Your task to perform on an android device: Show me recent news Image 0: 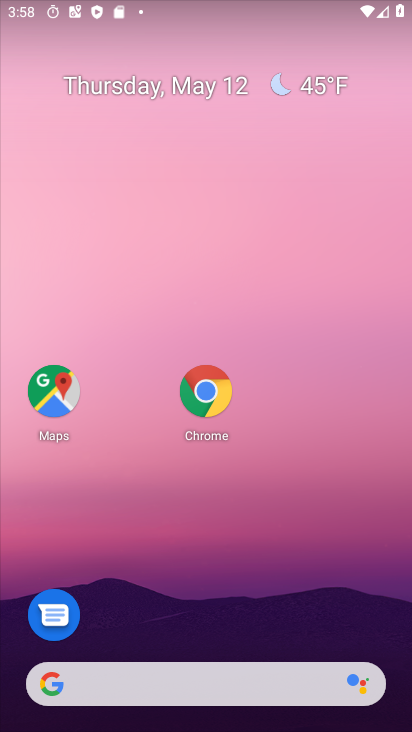
Step 0: drag from (212, 572) to (218, 28)
Your task to perform on an android device: Show me recent news Image 1: 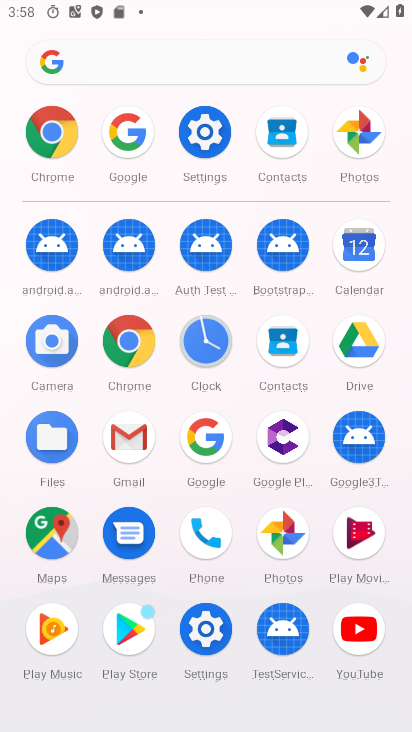
Step 1: click (207, 439)
Your task to perform on an android device: Show me recent news Image 2: 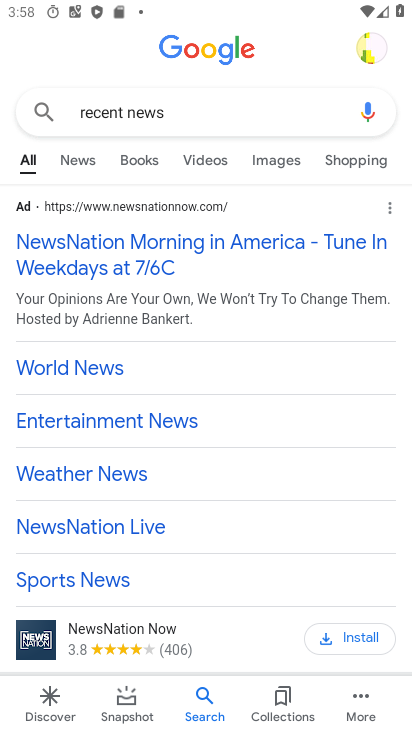
Step 2: task complete